Your task to perform on an android device: turn on data saver in the chrome app Image 0: 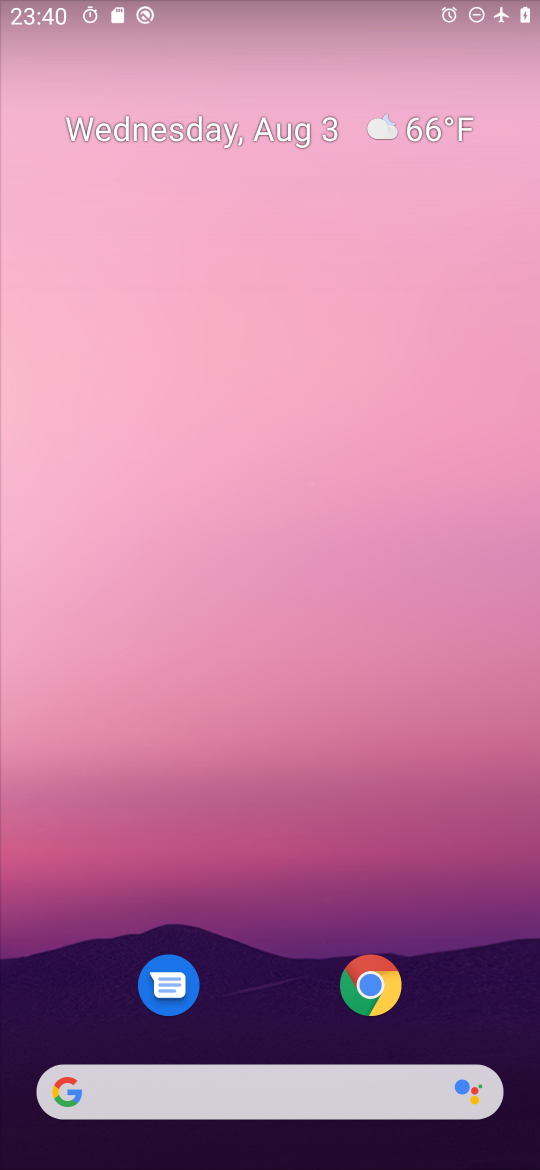
Step 0: click (356, 977)
Your task to perform on an android device: turn on data saver in the chrome app Image 1: 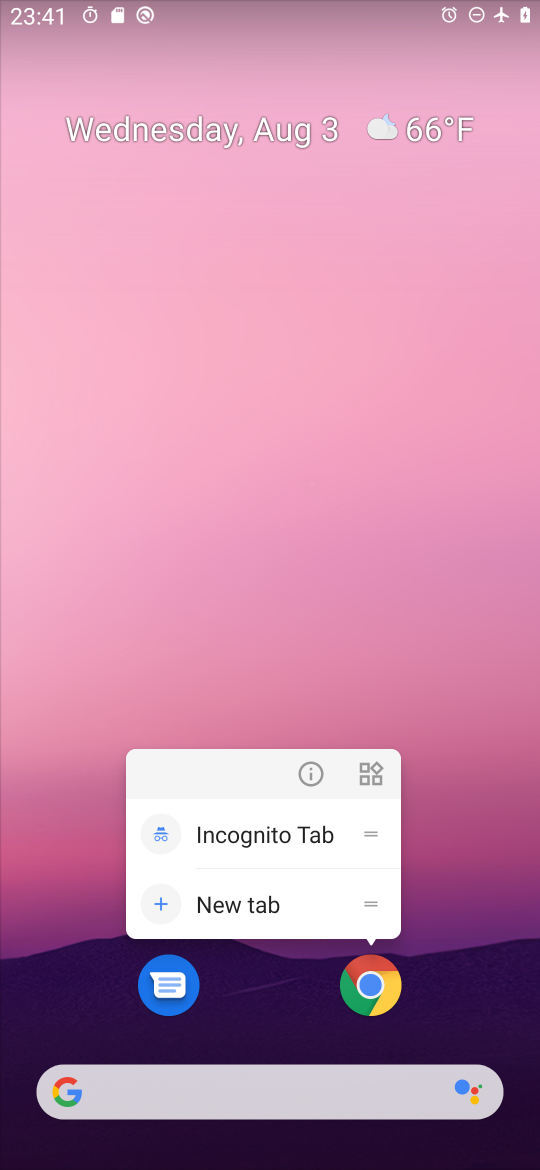
Step 1: click (356, 977)
Your task to perform on an android device: turn on data saver in the chrome app Image 2: 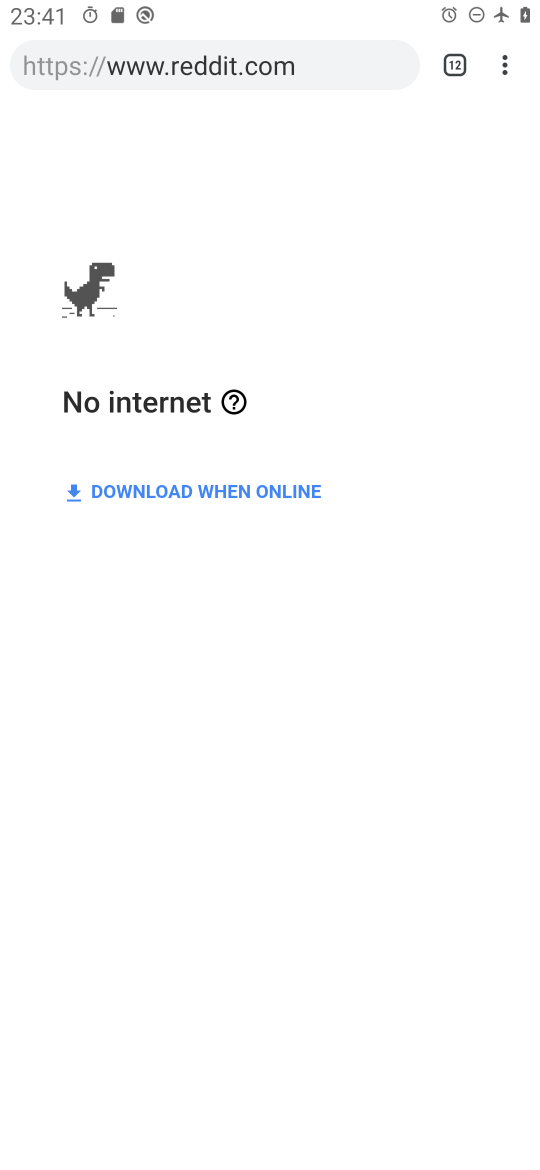
Step 2: click (499, 56)
Your task to perform on an android device: turn on data saver in the chrome app Image 3: 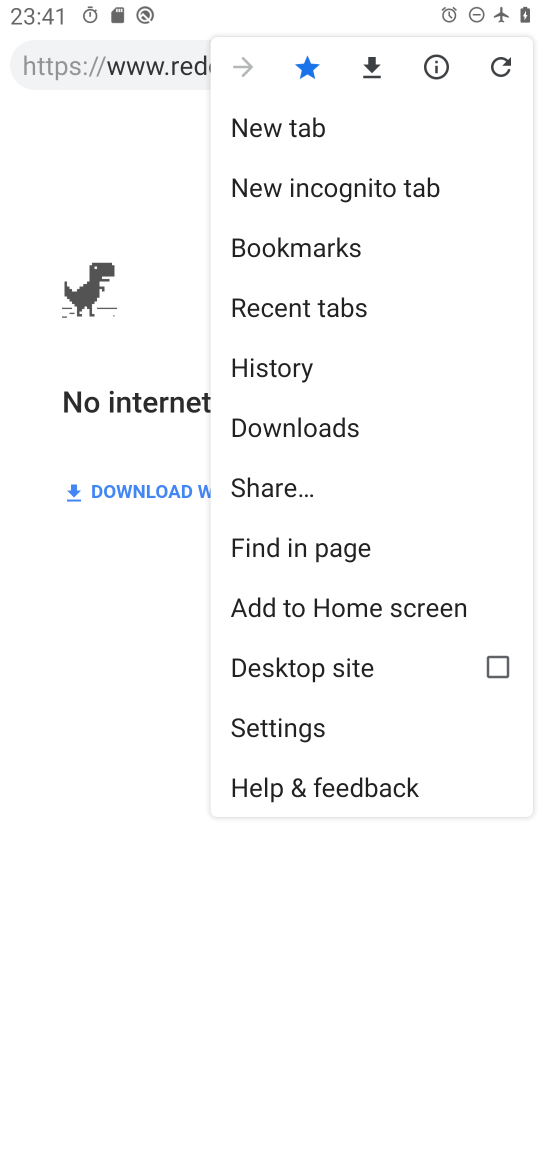
Step 3: click (287, 722)
Your task to perform on an android device: turn on data saver in the chrome app Image 4: 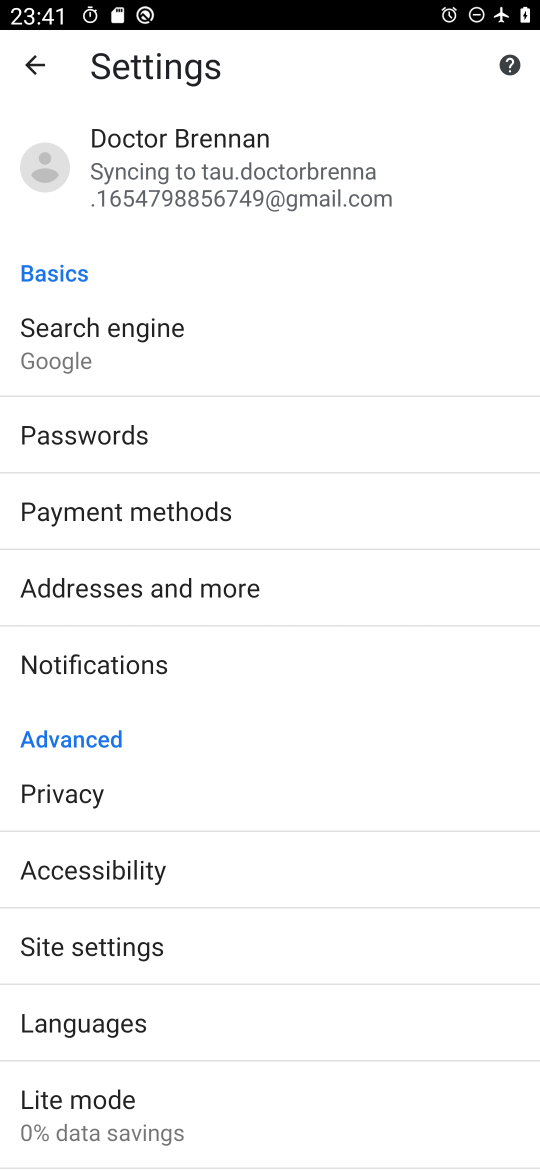
Step 4: click (95, 1111)
Your task to perform on an android device: turn on data saver in the chrome app Image 5: 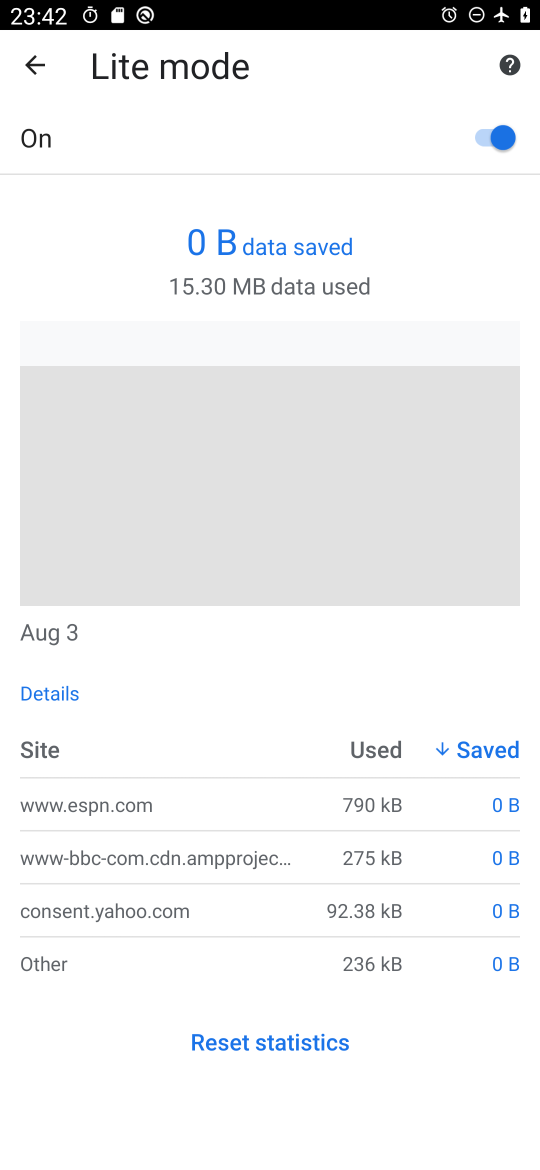
Step 5: task complete